Your task to perform on an android device: move an email to a new category in the gmail app Image 0: 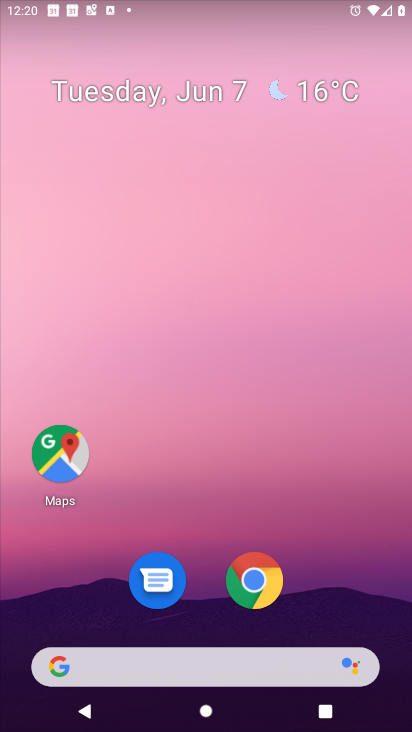
Step 0: drag from (357, 530) to (359, 69)
Your task to perform on an android device: move an email to a new category in the gmail app Image 1: 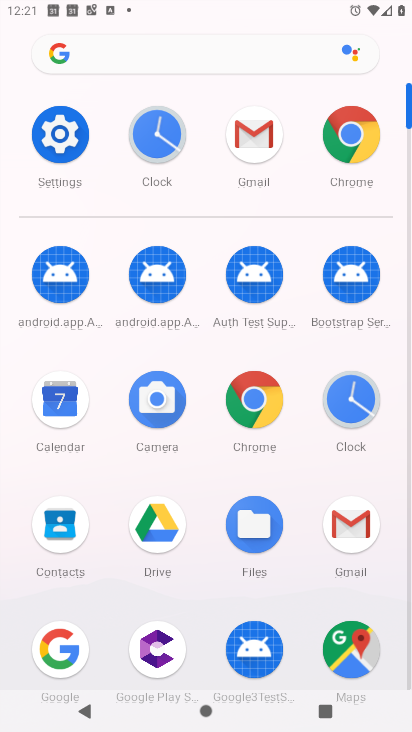
Step 1: click (362, 521)
Your task to perform on an android device: move an email to a new category in the gmail app Image 2: 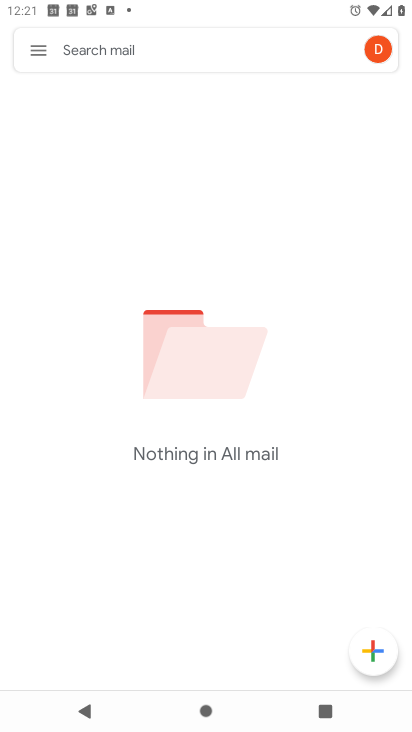
Step 2: task complete